Your task to perform on an android device: Open Reddit.com Image 0: 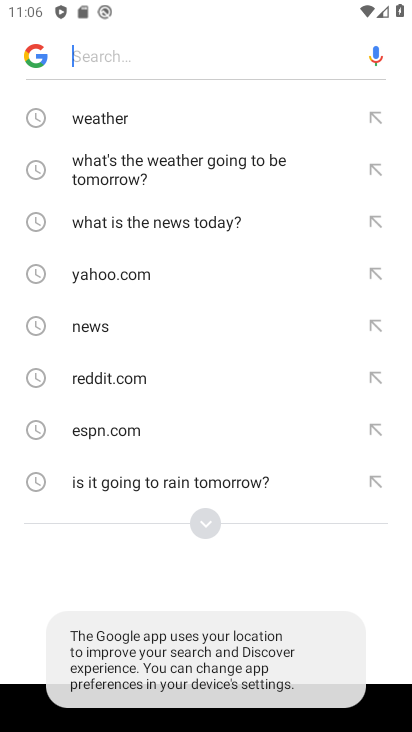
Step 0: press back button
Your task to perform on an android device: Open Reddit.com Image 1: 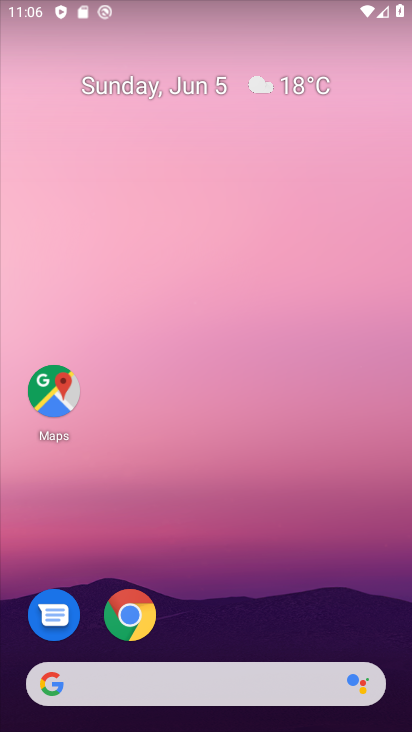
Step 1: press home button
Your task to perform on an android device: Open Reddit.com Image 2: 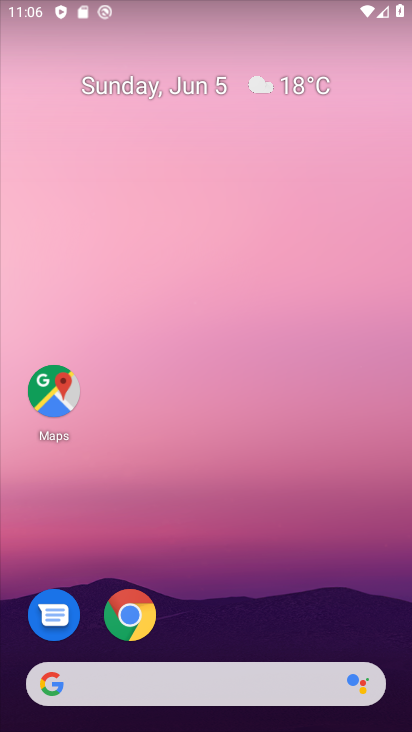
Step 2: click (128, 620)
Your task to perform on an android device: Open Reddit.com Image 3: 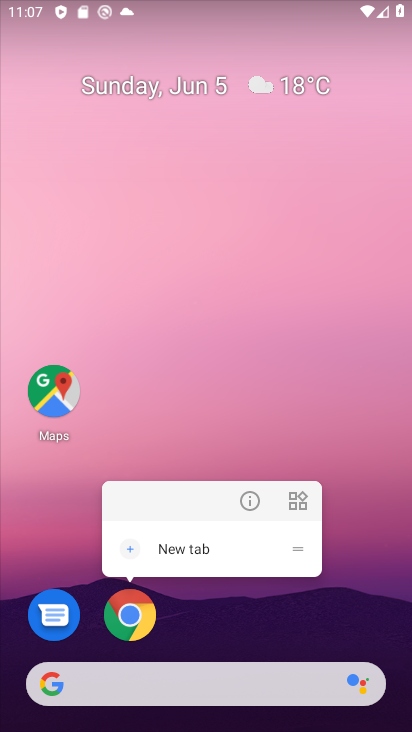
Step 3: click (123, 618)
Your task to perform on an android device: Open Reddit.com Image 4: 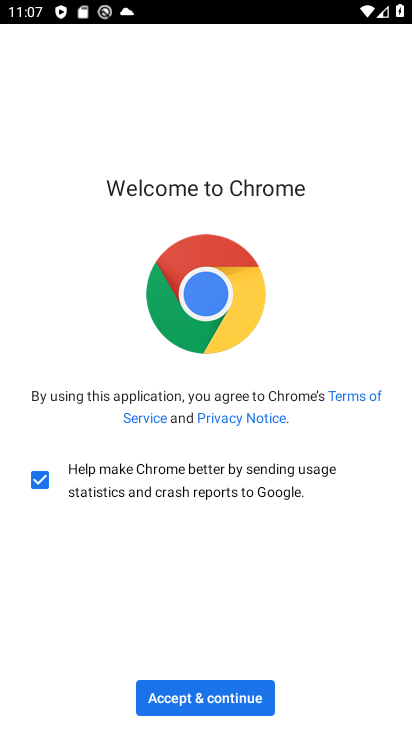
Step 4: click (173, 695)
Your task to perform on an android device: Open Reddit.com Image 5: 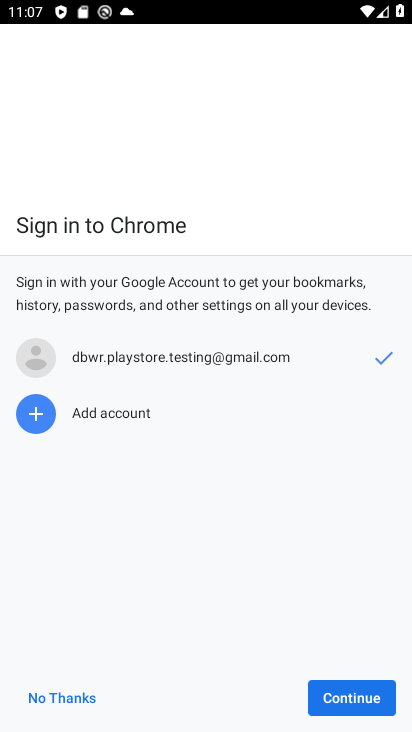
Step 5: click (356, 705)
Your task to perform on an android device: Open Reddit.com Image 6: 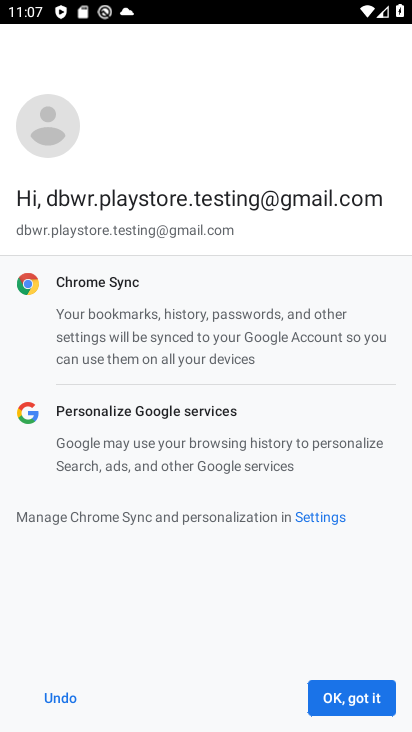
Step 6: click (354, 705)
Your task to perform on an android device: Open Reddit.com Image 7: 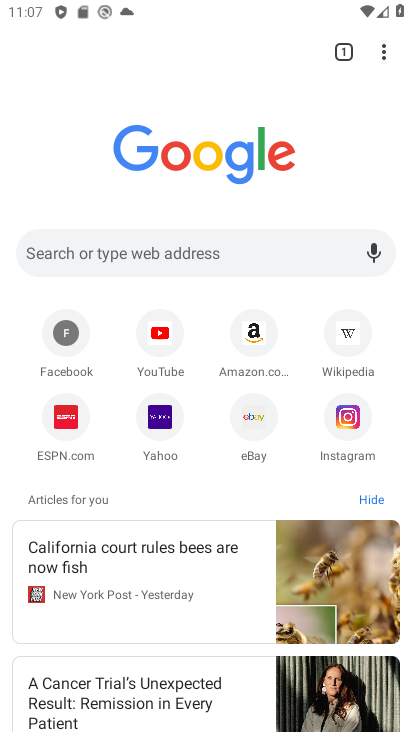
Step 7: click (241, 252)
Your task to perform on an android device: Open Reddit.com Image 8: 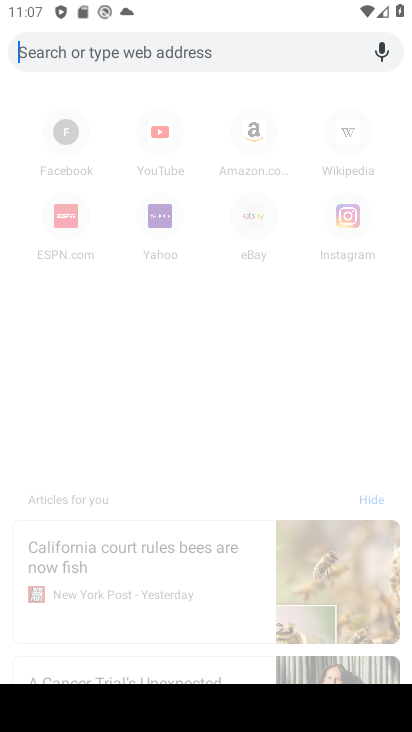
Step 8: type "reddit"
Your task to perform on an android device: Open Reddit.com Image 9: 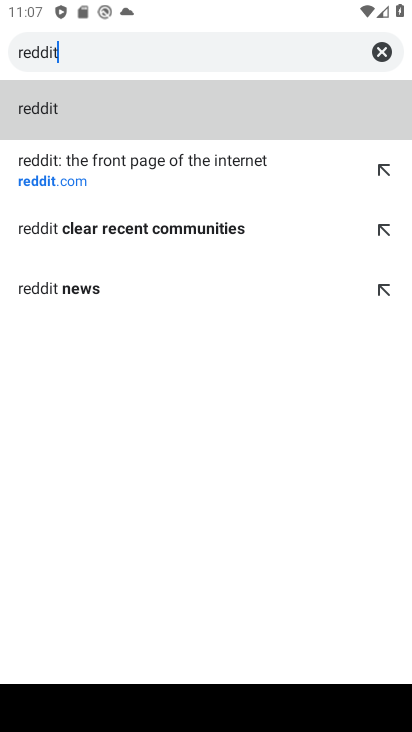
Step 9: click (111, 125)
Your task to perform on an android device: Open Reddit.com Image 10: 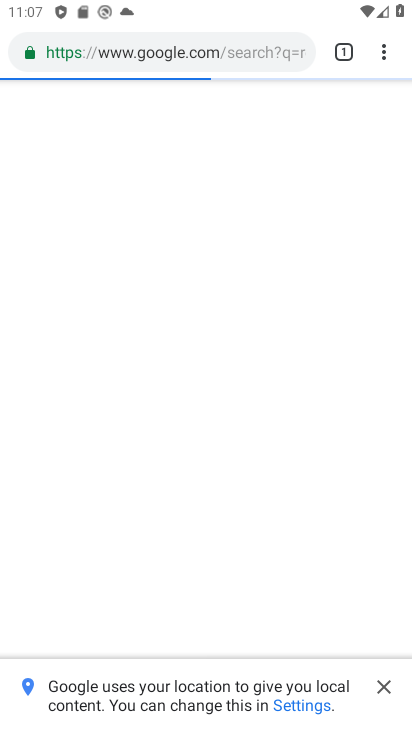
Step 10: click (386, 695)
Your task to perform on an android device: Open Reddit.com Image 11: 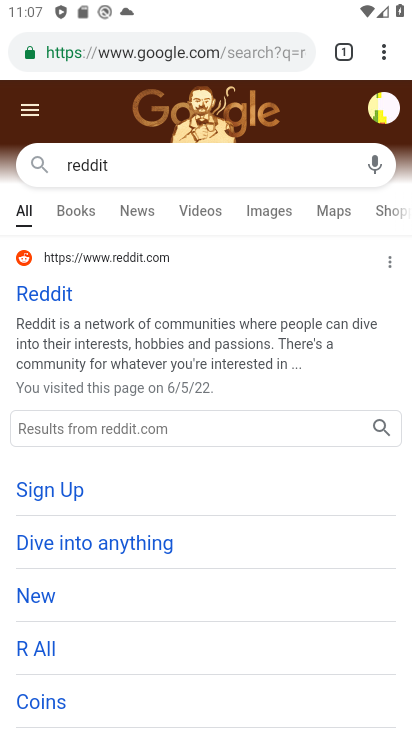
Step 11: click (33, 291)
Your task to perform on an android device: Open Reddit.com Image 12: 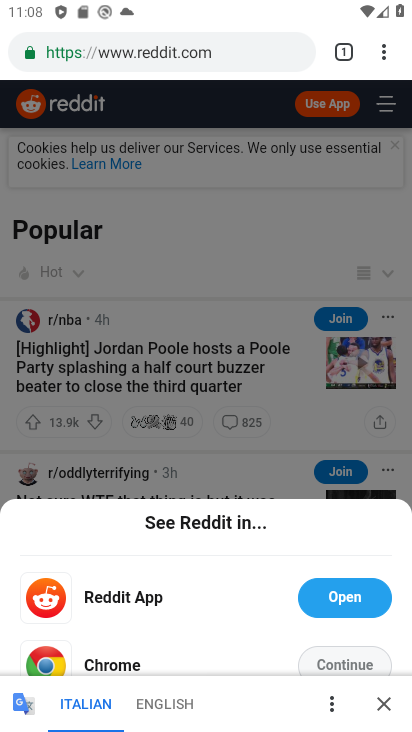
Step 12: click (330, 656)
Your task to perform on an android device: Open Reddit.com Image 13: 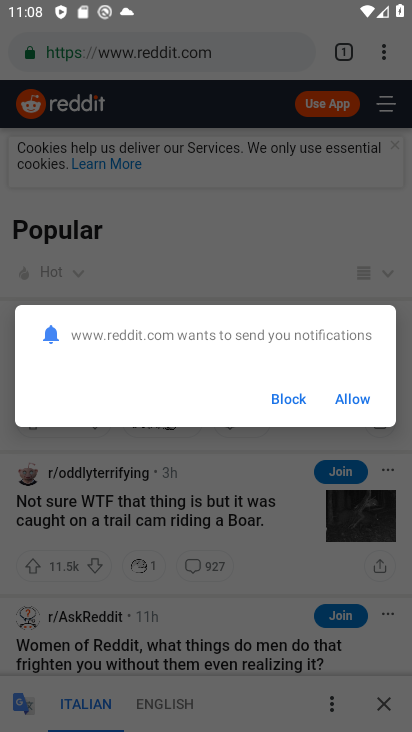
Step 13: click (284, 406)
Your task to perform on an android device: Open Reddit.com Image 14: 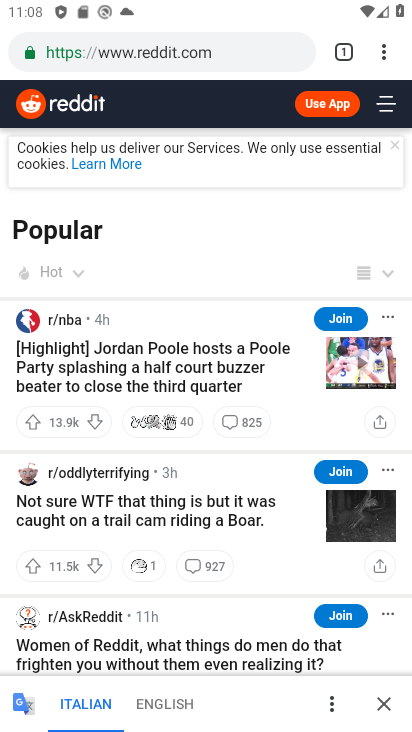
Step 14: click (157, 708)
Your task to perform on an android device: Open Reddit.com Image 15: 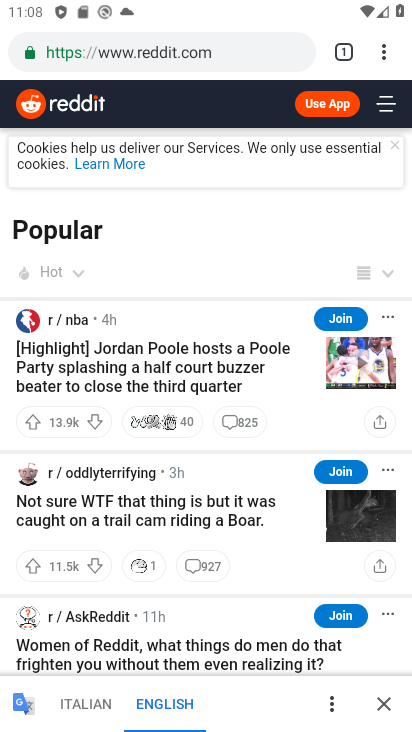
Step 15: task complete